Your task to perform on an android device: Open Chrome and go to settings Image 0: 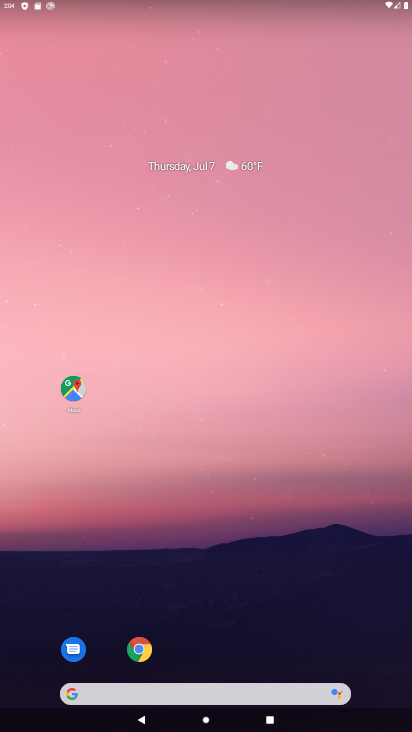
Step 0: drag from (213, 686) to (289, 202)
Your task to perform on an android device: Open Chrome and go to settings Image 1: 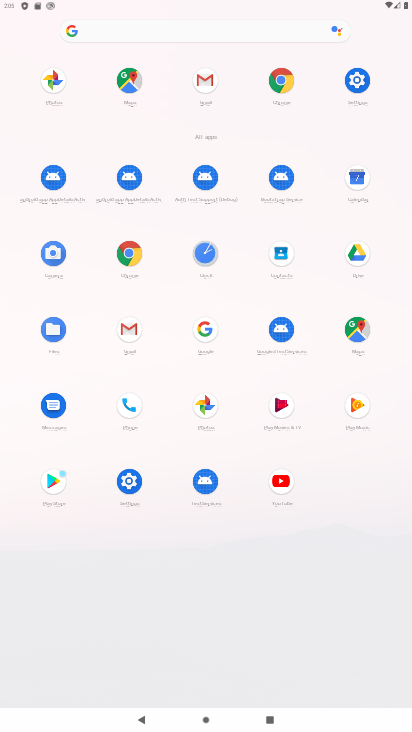
Step 1: click (125, 254)
Your task to perform on an android device: Open Chrome and go to settings Image 2: 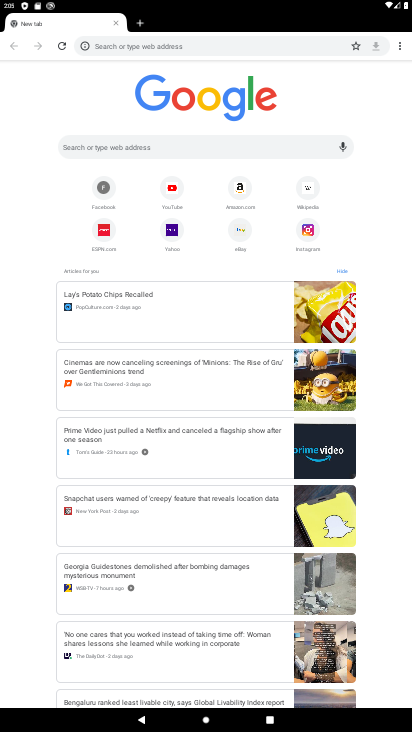
Step 2: click (125, 254)
Your task to perform on an android device: Open Chrome and go to settings Image 3: 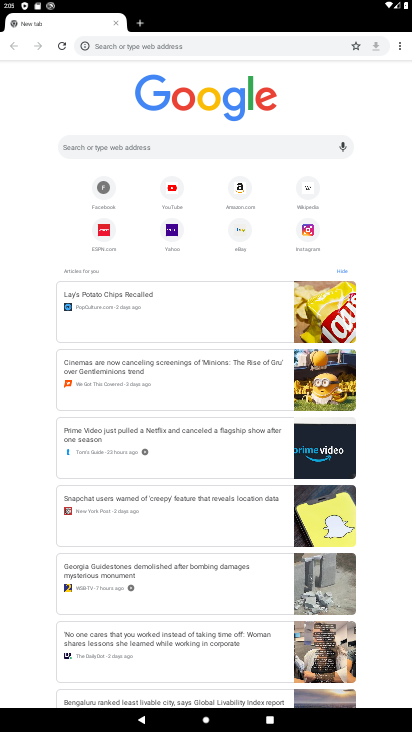
Step 3: task complete